Your task to perform on an android device: turn off javascript in the chrome app Image 0: 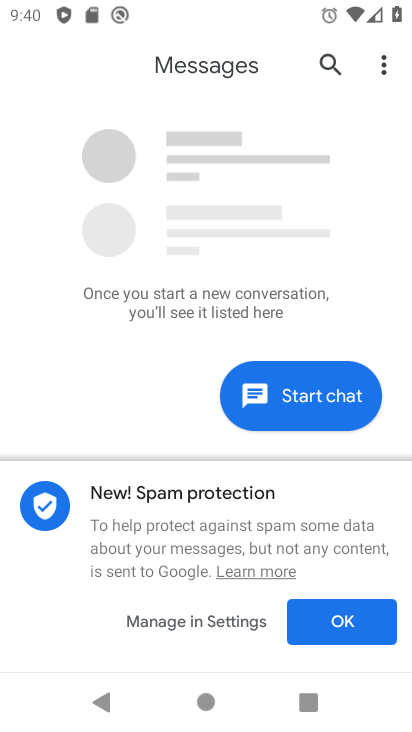
Step 0: press home button
Your task to perform on an android device: turn off javascript in the chrome app Image 1: 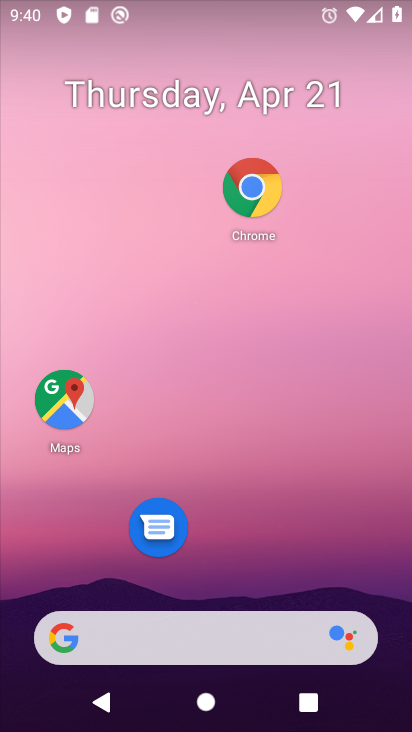
Step 1: click (238, 201)
Your task to perform on an android device: turn off javascript in the chrome app Image 2: 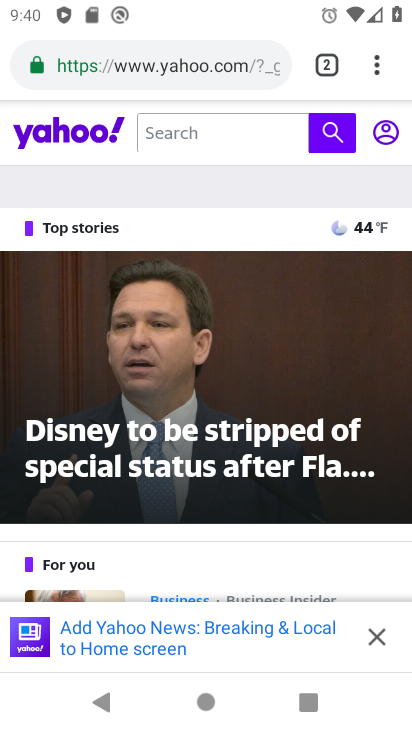
Step 2: click (379, 73)
Your task to perform on an android device: turn off javascript in the chrome app Image 3: 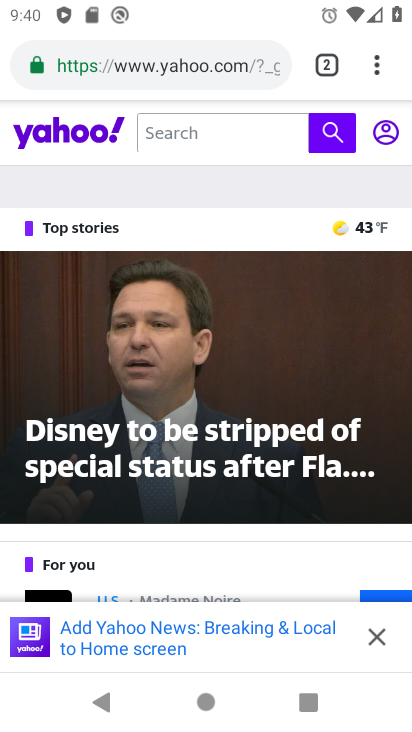
Step 3: click (379, 73)
Your task to perform on an android device: turn off javascript in the chrome app Image 4: 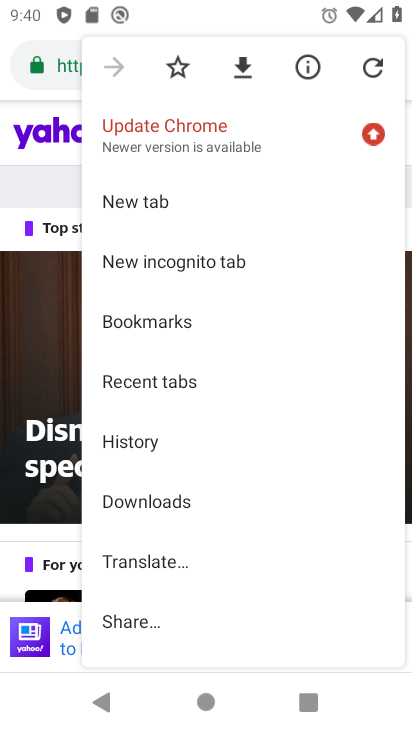
Step 4: drag from (181, 609) to (235, 202)
Your task to perform on an android device: turn off javascript in the chrome app Image 5: 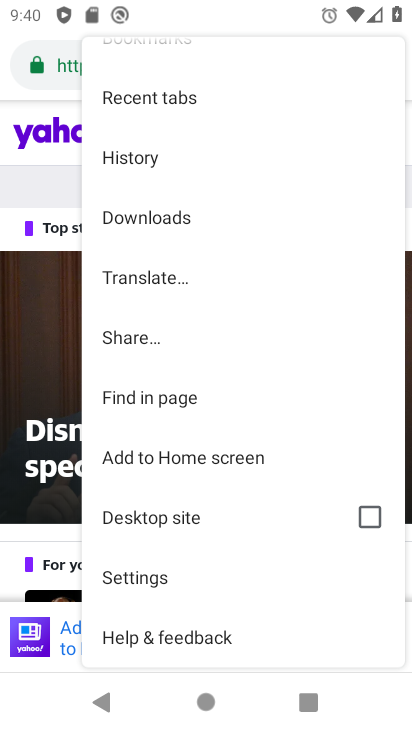
Step 5: click (229, 585)
Your task to perform on an android device: turn off javascript in the chrome app Image 6: 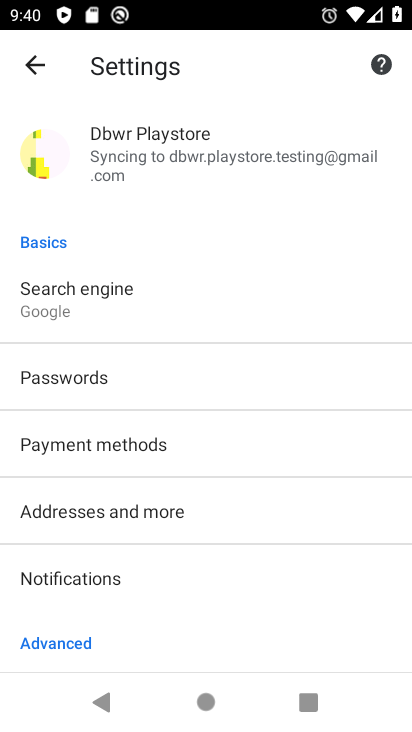
Step 6: drag from (229, 585) to (267, 290)
Your task to perform on an android device: turn off javascript in the chrome app Image 7: 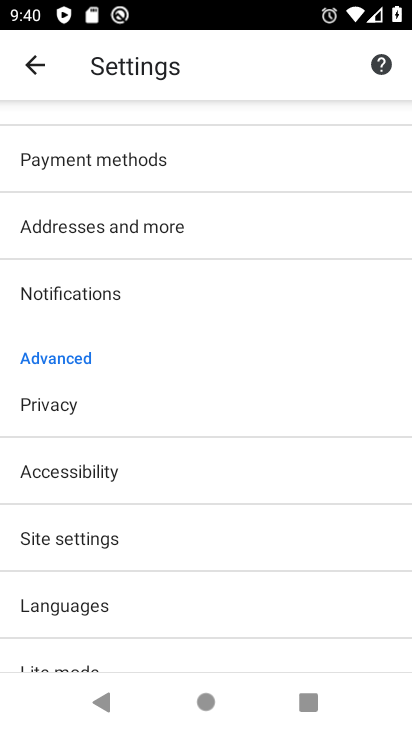
Step 7: drag from (216, 598) to (275, 211)
Your task to perform on an android device: turn off javascript in the chrome app Image 8: 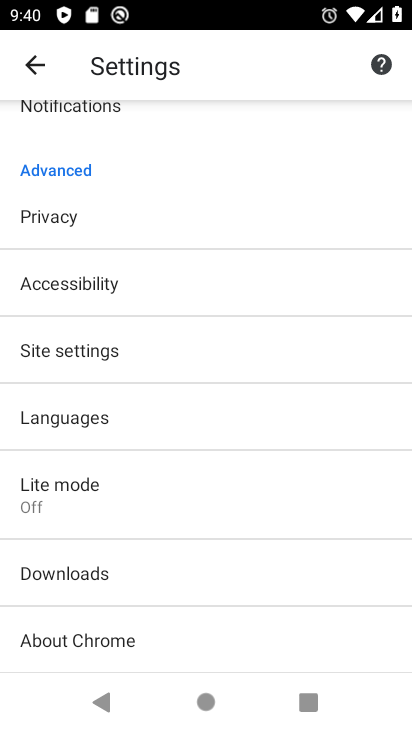
Step 8: click (171, 340)
Your task to perform on an android device: turn off javascript in the chrome app Image 9: 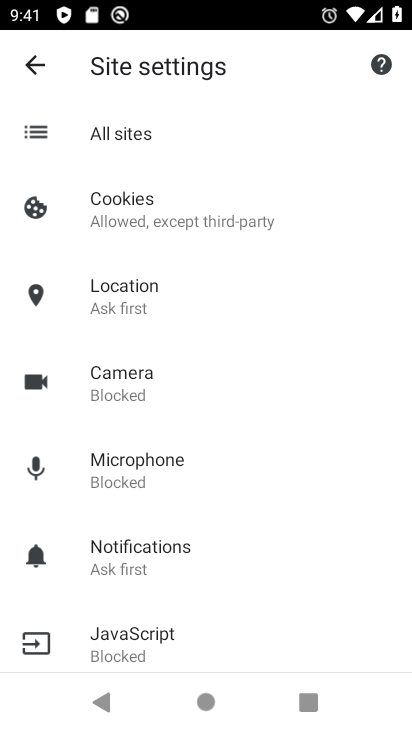
Step 9: click (190, 633)
Your task to perform on an android device: turn off javascript in the chrome app Image 10: 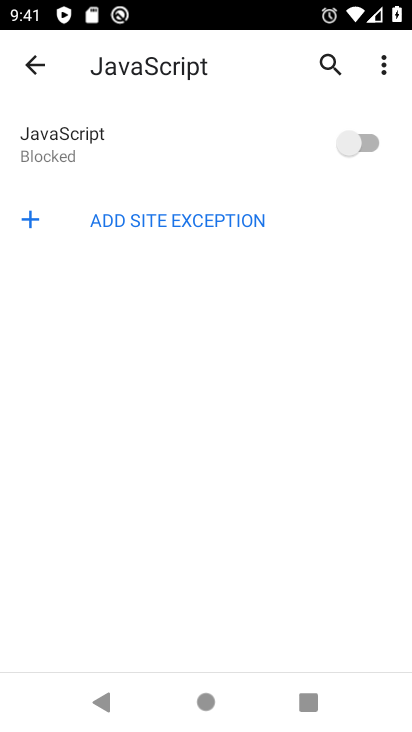
Step 10: task complete